Your task to perform on an android device: Open battery settings Image 0: 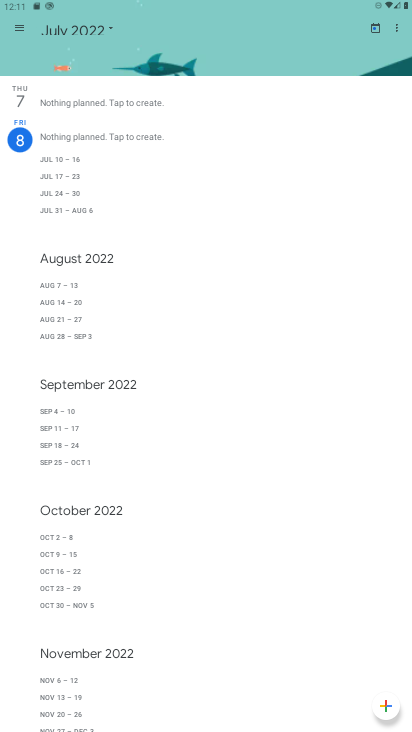
Step 0: press home button
Your task to perform on an android device: Open battery settings Image 1: 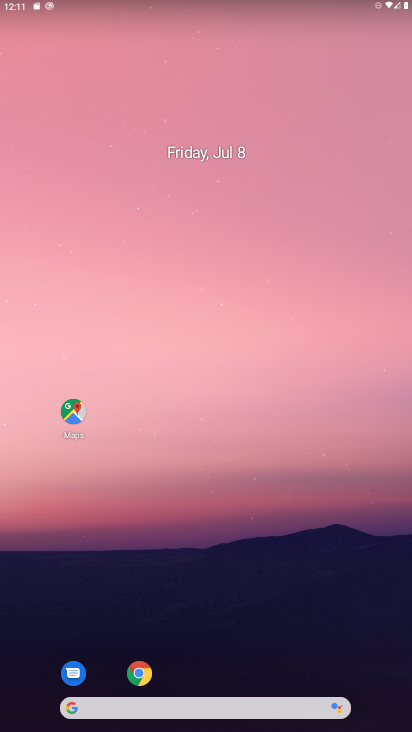
Step 1: drag from (403, 709) to (333, 92)
Your task to perform on an android device: Open battery settings Image 2: 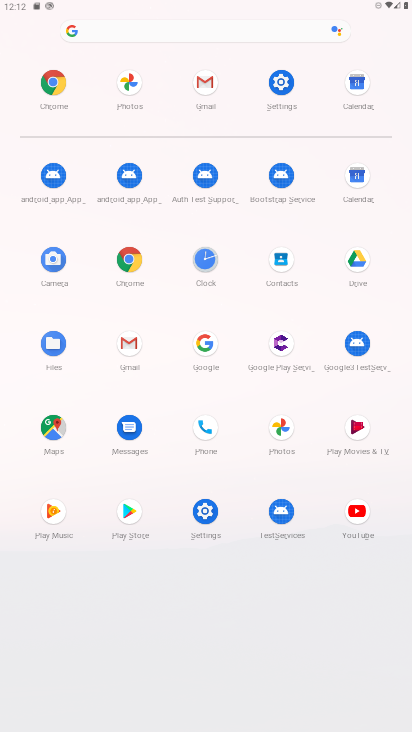
Step 2: click (288, 81)
Your task to perform on an android device: Open battery settings Image 3: 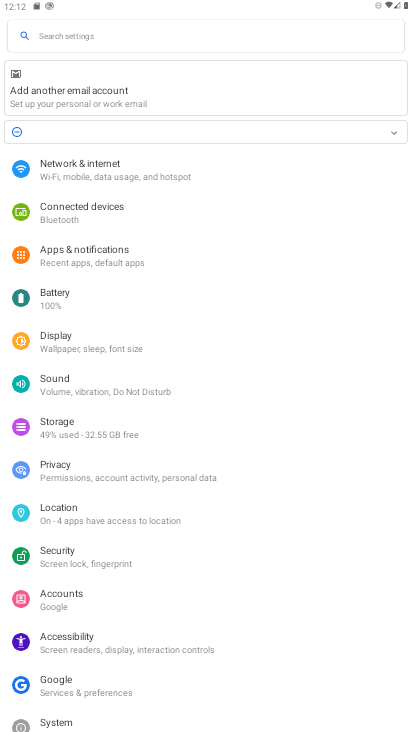
Step 3: click (48, 291)
Your task to perform on an android device: Open battery settings Image 4: 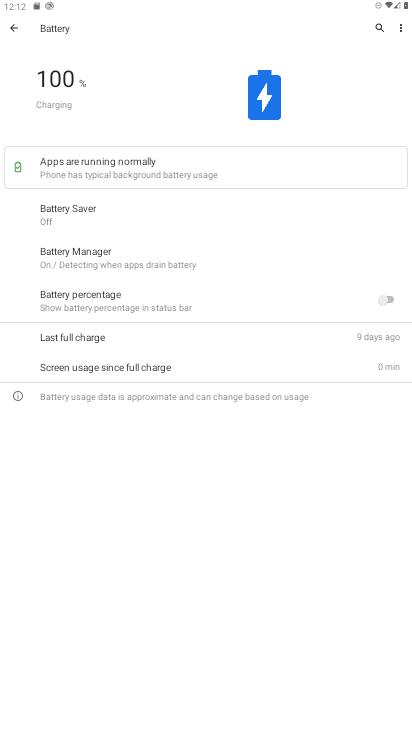
Step 4: task complete